Your task to perform on an android device: toggle data saver in the chrome app Image 0: 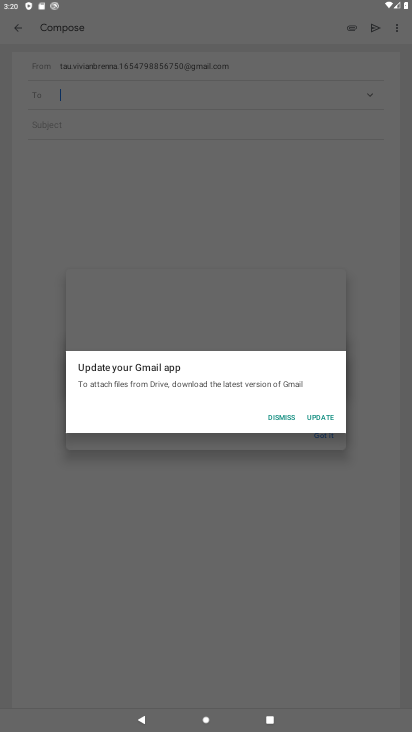
Step 0: press home button
Your task to perform on an android device: toggle data saver in the chrome app Image 1: 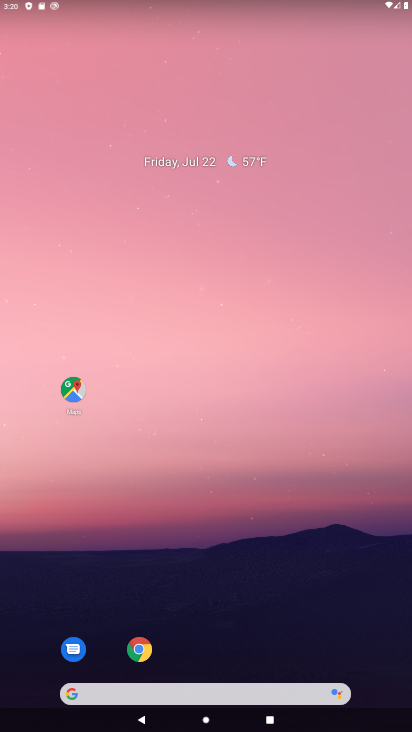
Step 1: drag from (203, 485) to (329, 294)
Your task to perform on an android device: toggle data saver in the chrome app Image 2: 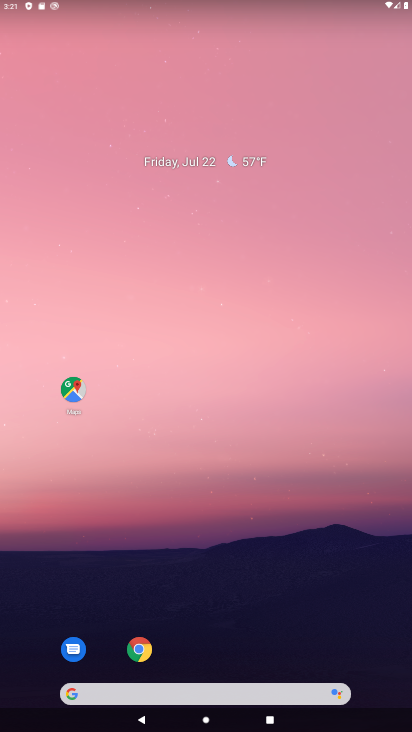
Step 2: click (139, 637)
Your task to perform on an android device: toggle data saver in the chrome app Image 3: 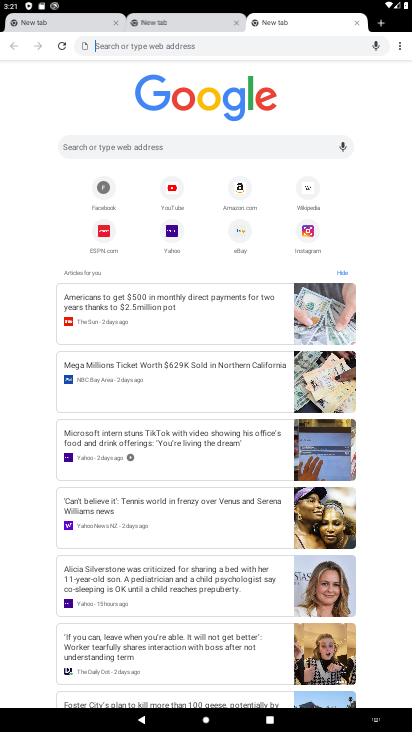
Step 3: click (399, 44)
Your task to perform on an android device: toggle data saver in the chrome app Image 4: 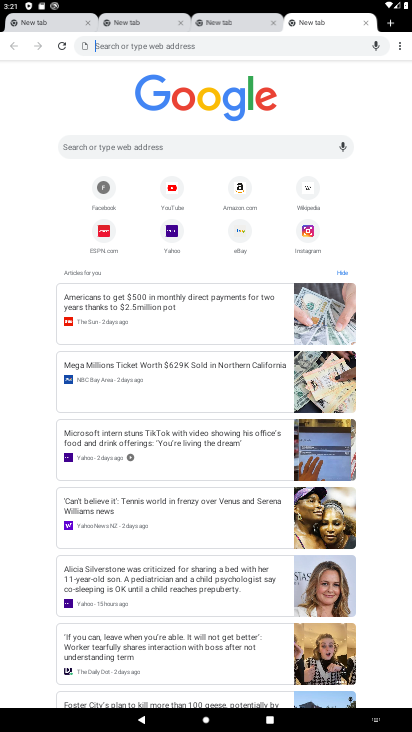
Step 4: click (401, 39)
Your task to perform on an android device: toggle data saver in the chrome app Image 5: 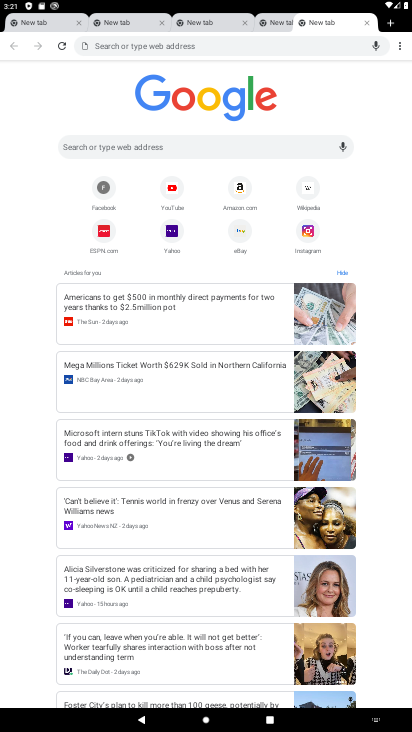
Step 5: task complete